Your task to perform on an android device: Play the new Taylor Swift video on YouTube Image 0: 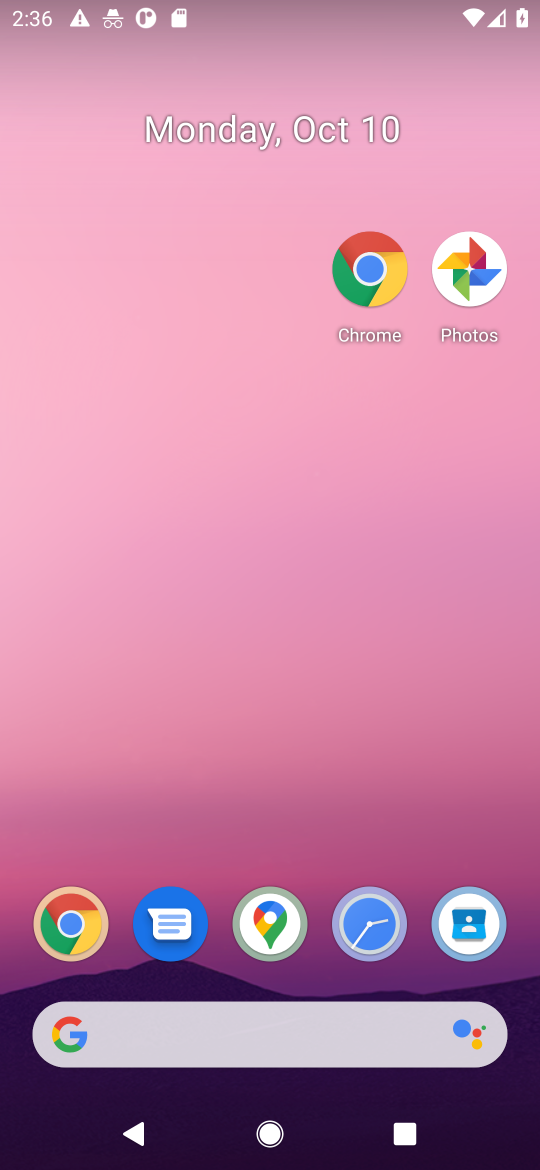
Step 0: drag from (336, 841) to (314, 0)
Your task to perform on an android device: Play the new Taylor Swift video on YouTube Image 1: 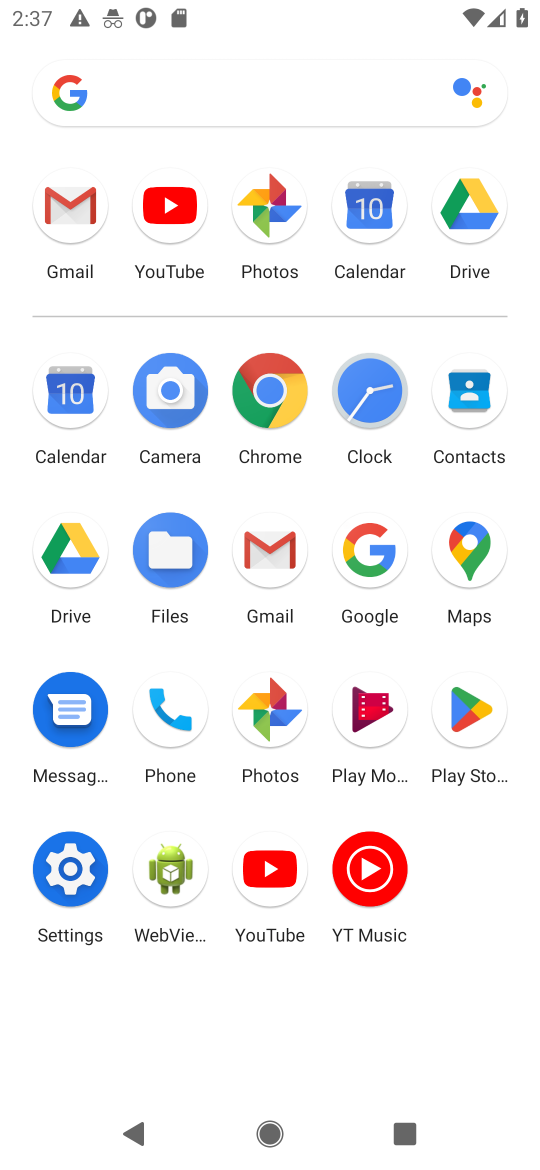
Step 1: click (279, 865)
Your task to perform on an android device: Play the new Taylor Swift video on YouTube Image 2: 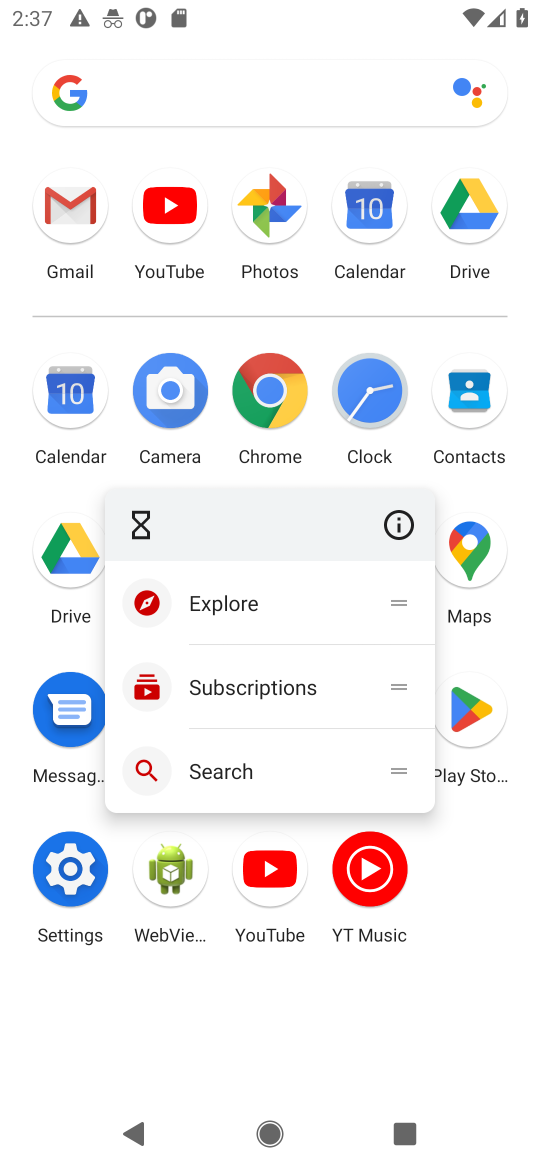
Step 2: click (279, 866)
Your task to perform on an android device: Play the new Taylor Swift video on YouTube Image 3: 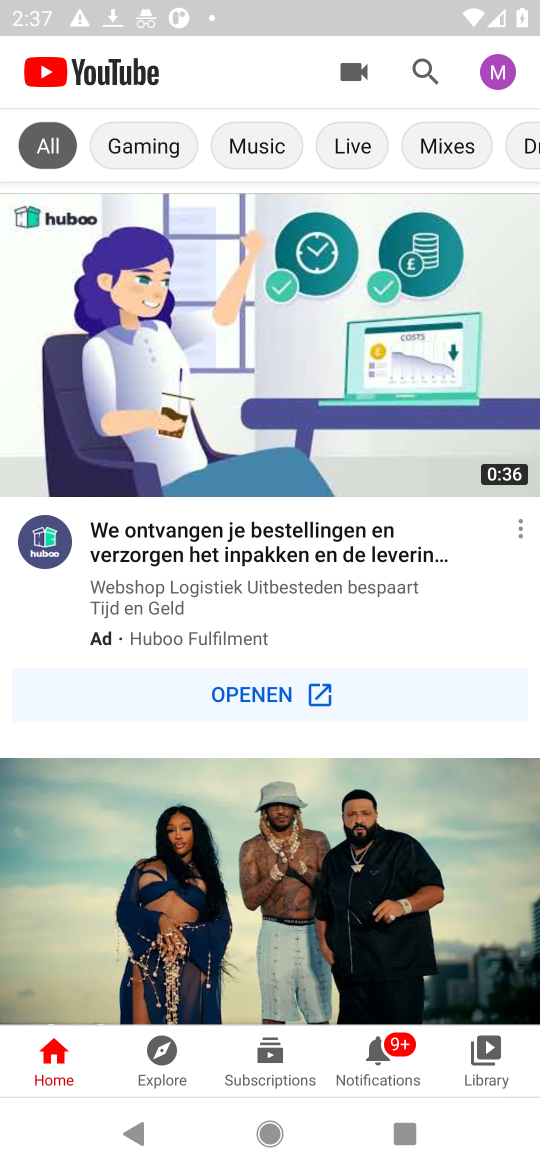
Step 3: click (414, 67)
Your task to perform on an android device: Play the new Taylor Swift video on YouTube Image 4: 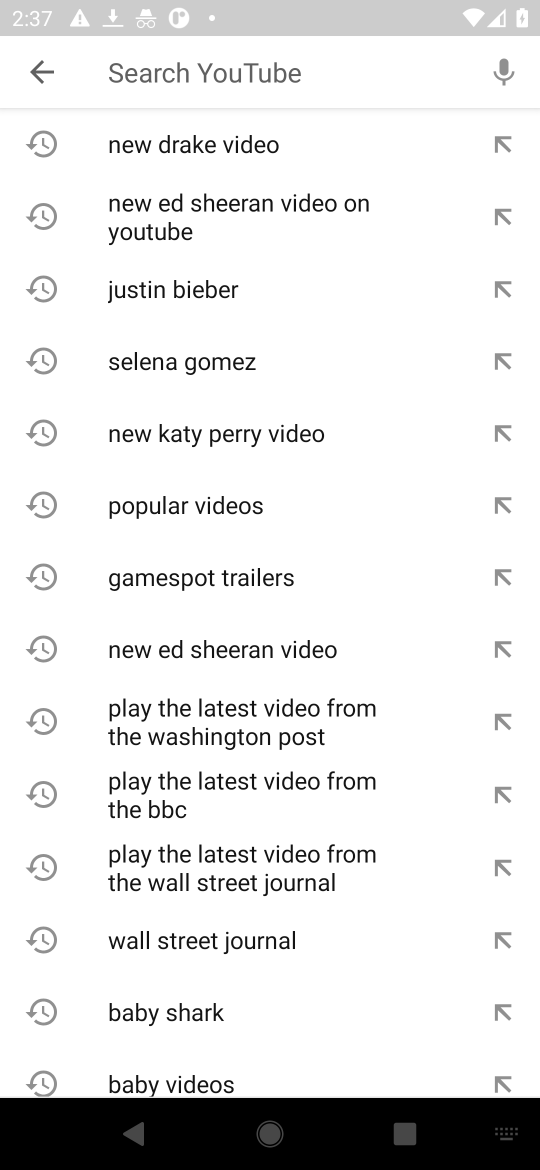
Step 4: drag from (158, 1169) to (490, 1167)
Your task to perform on an android device: Play the new Taylor Swift video on YouTube Image 5: 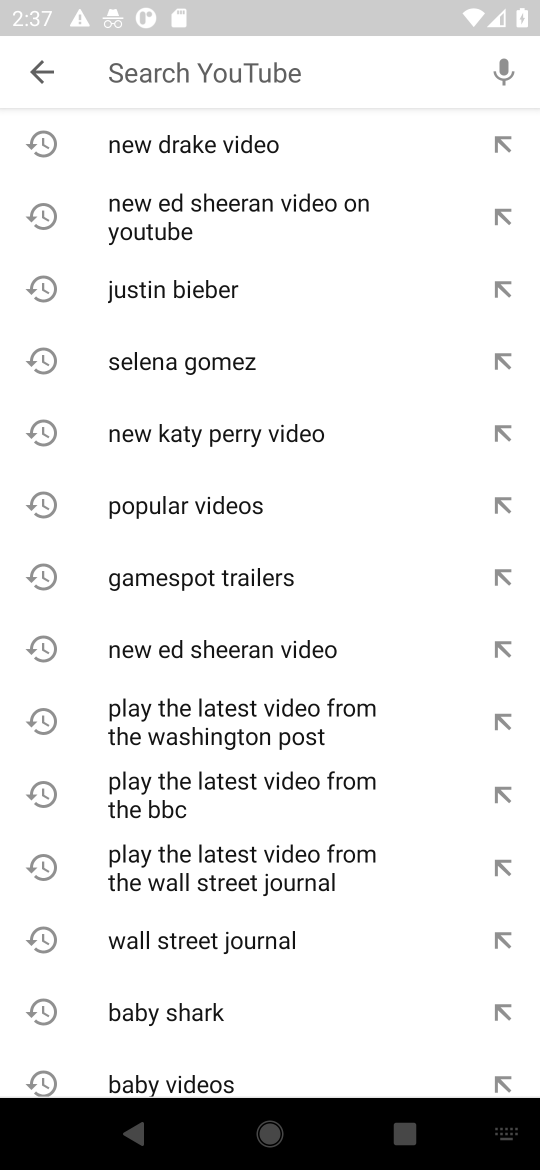
Step 5: type "Play the new Taylor Swift video"
Your task to perform on an android device: Play the new Taylor Swift video on YouTube Image 6: 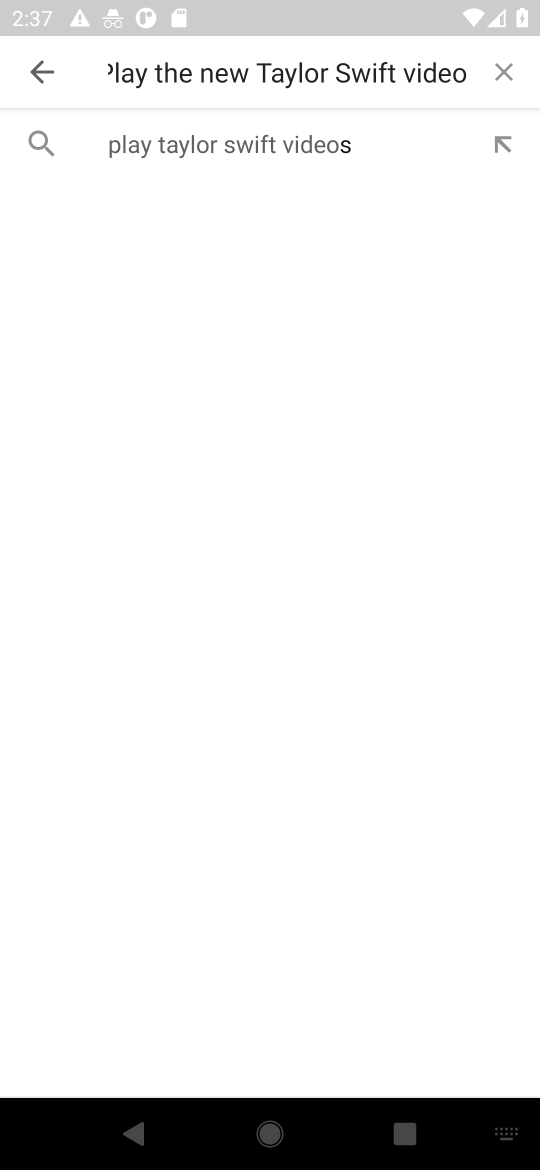
Step 6: click (194, 135)
Your task to perform on an android device: Play the new Taylor Swift video on YouTube Image 7: 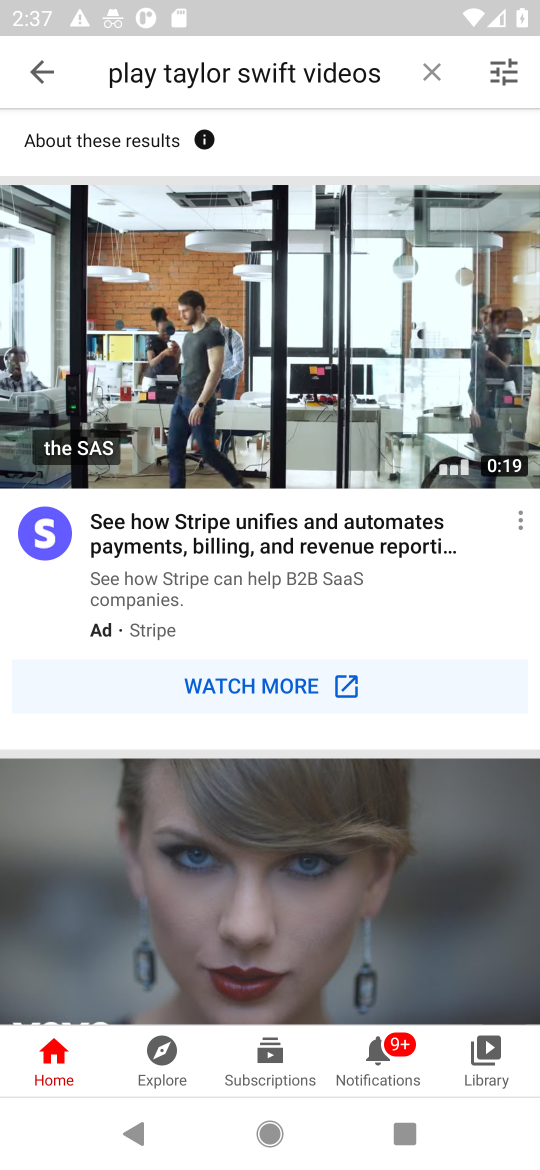
Step 7: task complete